Your task to perform on an android device: change notifications settings Image 0: 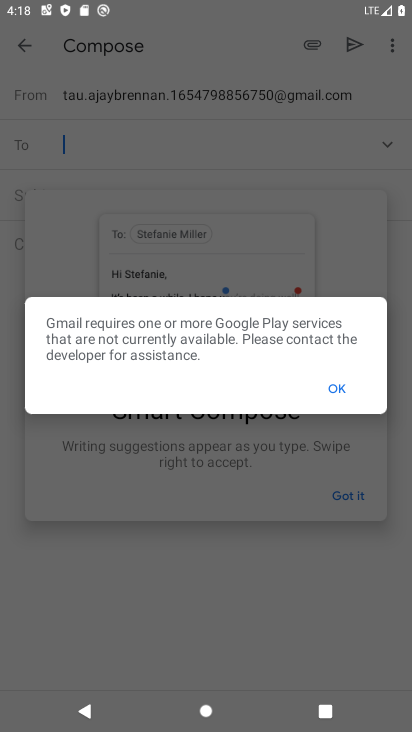
Step 0: press home button
Your task to perform on an android device: change notifications settings Image 1: 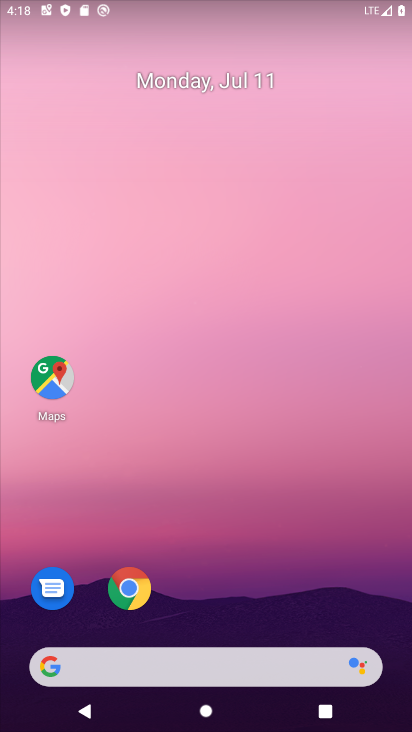
Step 1: drag from (380, 615) to (363, 126)
Your task to perform on an android device: change notifications settings Image 2: 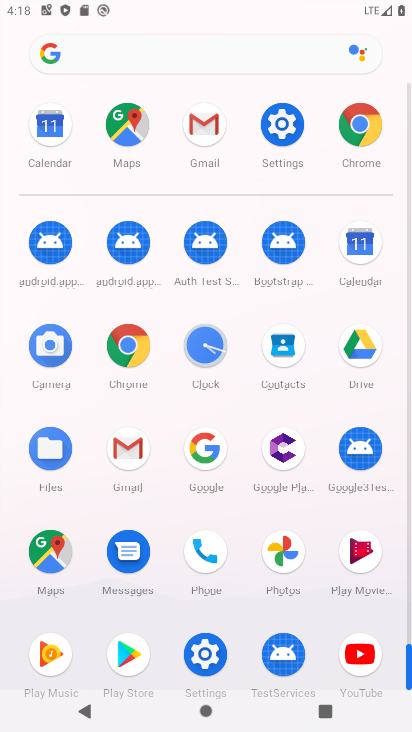
Step 2: click (285, 131)
Your task to perform on an android device: change notifications settings Image 3: 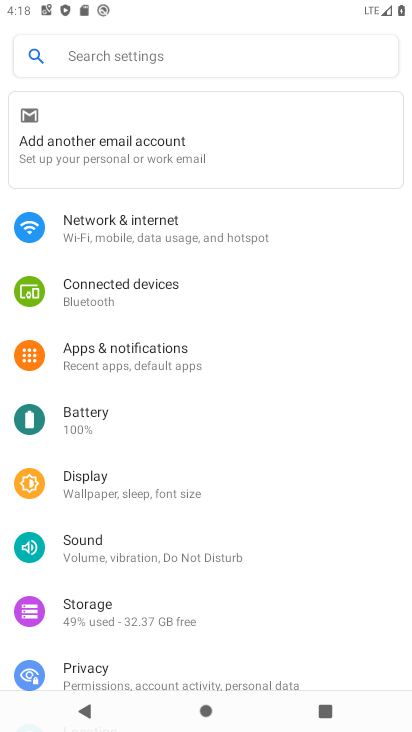
Step 3: click (268, 360)
Your task to perform on an android device: change notifications settings Image 4: 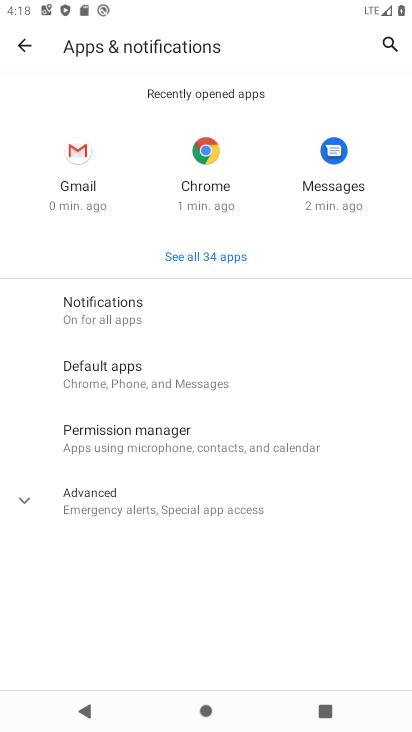
Step 4: click (176, 323)
Your task to perform on an android device: change notifications settings Image 5: 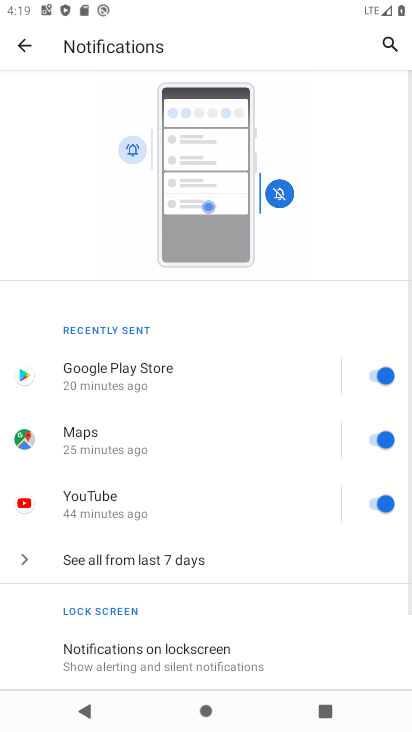
Step 5: drag from (266, 447) to (265, 290)
Your task to perform on an android device: change notifications settings Image 6: 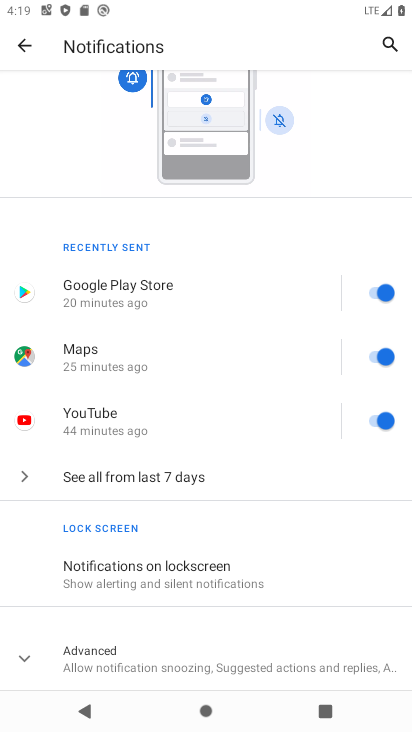
Step 6: click (389, 411)
Your task to perform on an android device: change notifications settings Image 7: 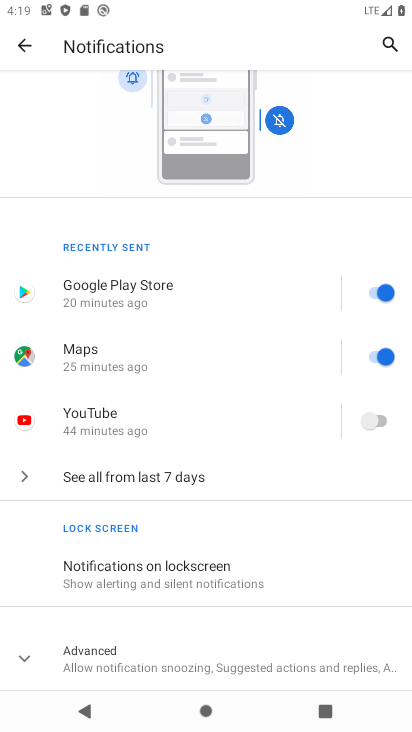
Step 7: click (384, 361)
Your task to perform on an android device: change notifications settings Image 8: 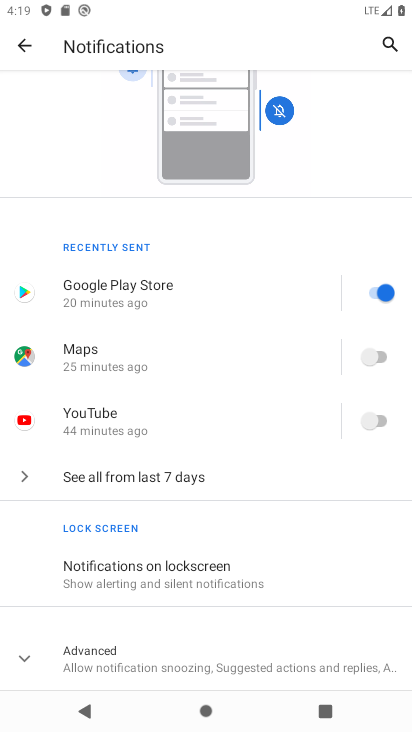
Step 8: click (386, 295)
Your task to perform on an android device: change notifications settings Image 9: 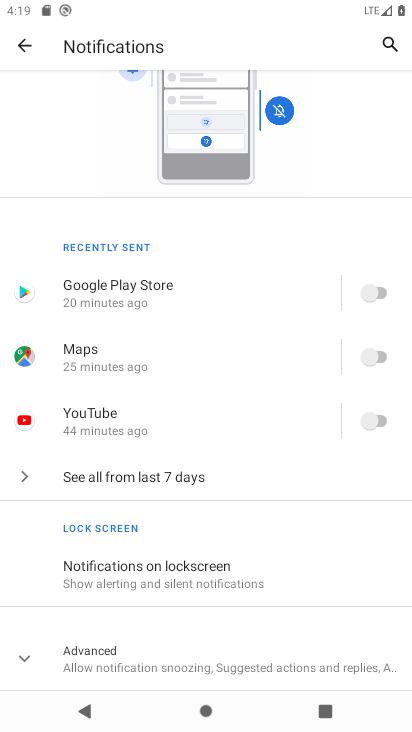
Step 9: task complete